Your task to perform on an android device: turn on translation in the chrome app Image 0: 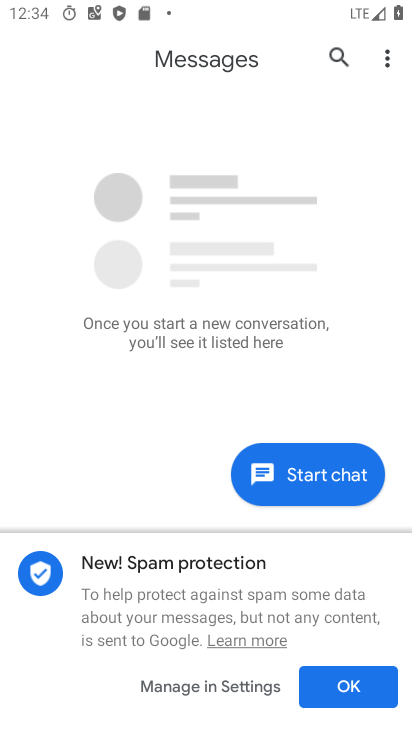
Step 0: press home button
Your task to perform on an android device: turn on translation in the chrome app Image 1: 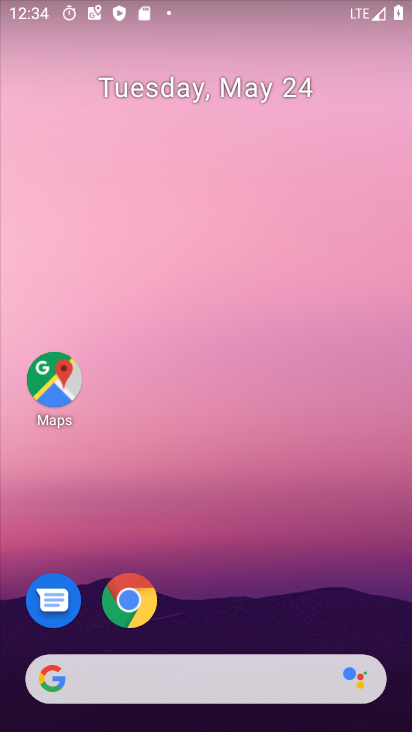
Step 1: click (123, 599)
Your task to perform on an android device: turn on translation in the chrome app Image 2: 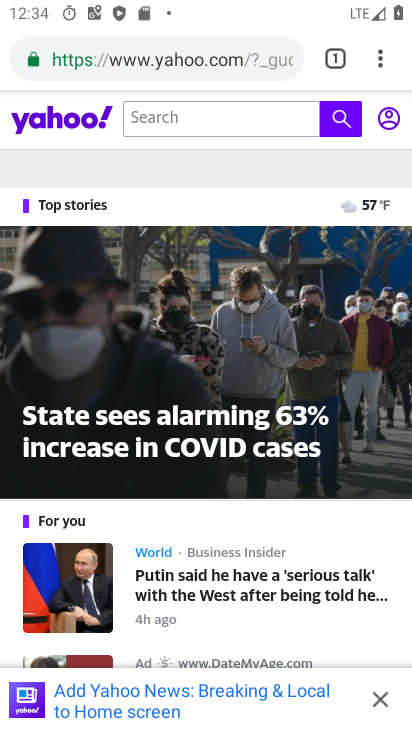
Step 2: click (380, 54)
Your task to perform on an android device: turn on translation in the chrome app Image 3: 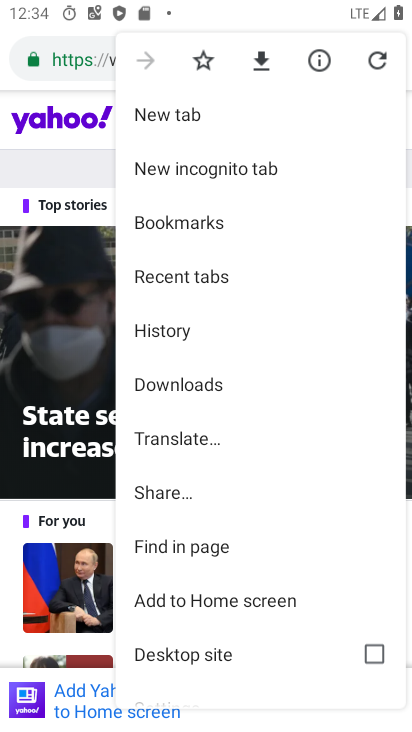
Step 3: drag from (205, 559) to (303, 185)
Your task to perform on an android device: turn on translation in the chrome app Image 4: 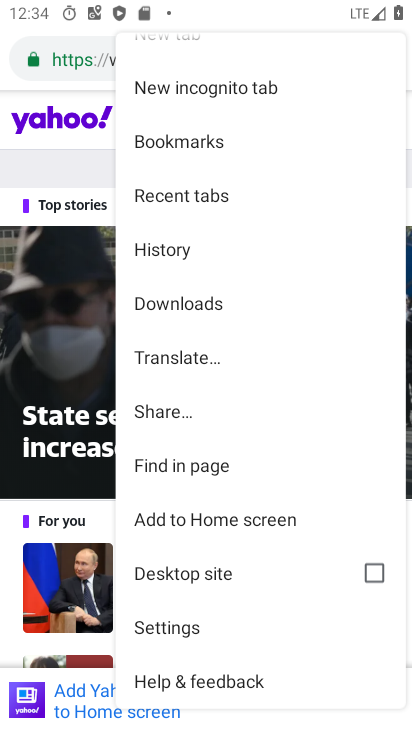
Step 4: click (165, 624)
Your task to perform on an android device: turn on translation in the chrome app Image 5: 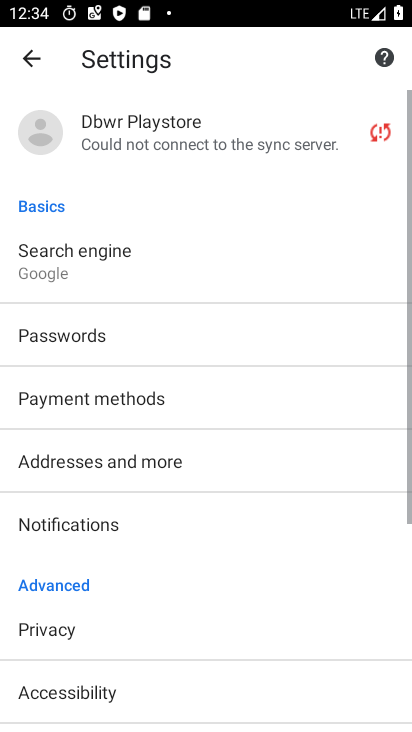
Step 5: drag from (185, 566) to (207, 167)
Your task to perform on an android device: turn on translation in the chrome app Image 6: 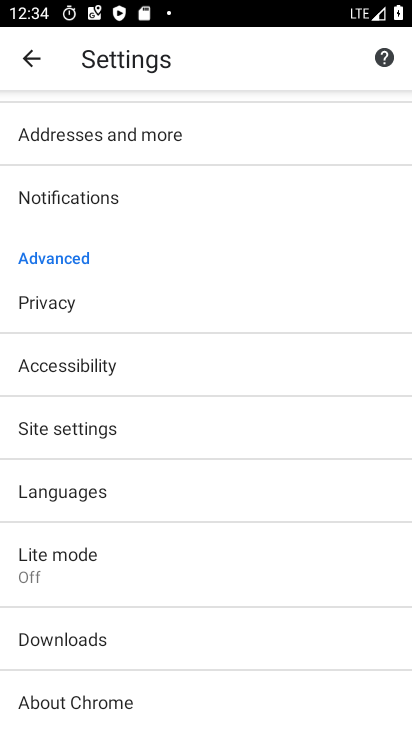
Step 6: click (134, 504)
Your task to perform on an android device: turn on translation in the chrome app Image 7: 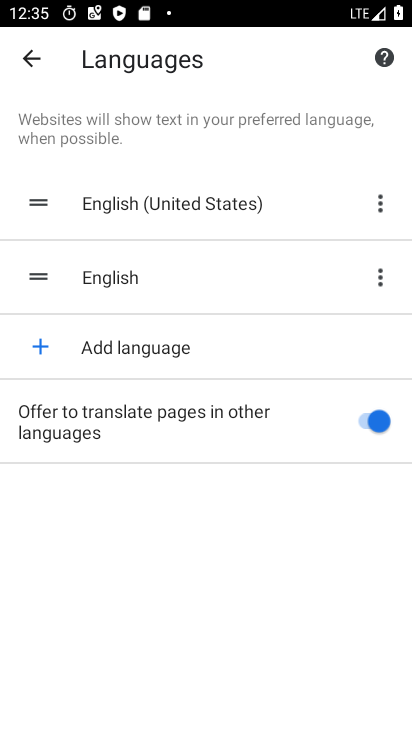
Step 7: task complete